Your task to perform on an android device: open a bookmark in the chrome app Image 0: 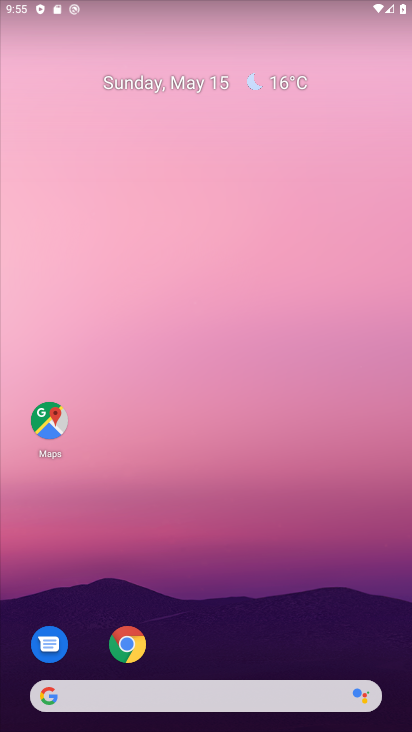
Step 0: click (117, 626)
Your task to perform on an android device: open a bookmark in the chrome app Image 1: 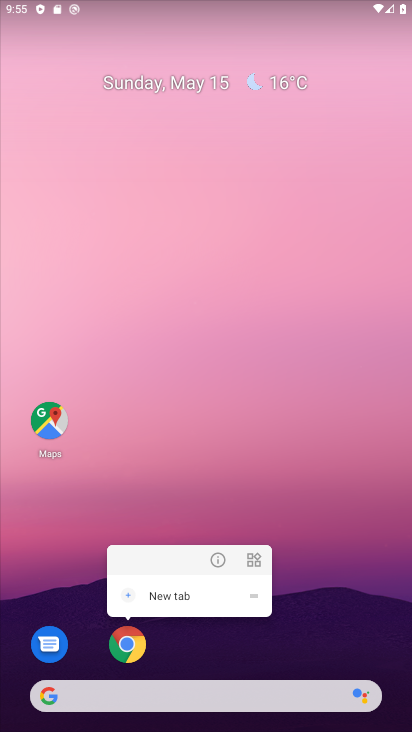
Step 1: click (127, 649)
Your task to perform on an android device: open a bookmark in the chrome app Image 2: 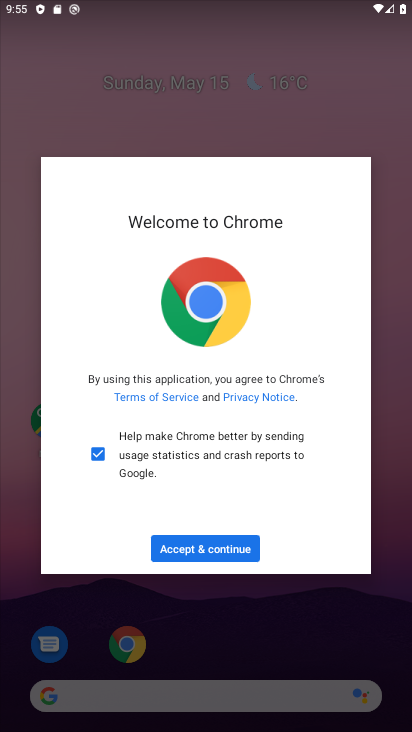
Step 2: click (190, 554)
Your task to perform on an android device: open a bookmark in the chrome app Image 3: 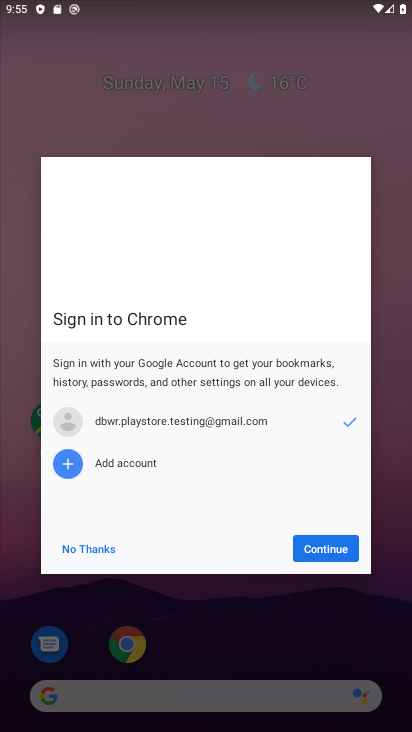
Step 3: click (335, 543)
Your task to perform on an android device: open a bookmark in the chrome app Image 4: 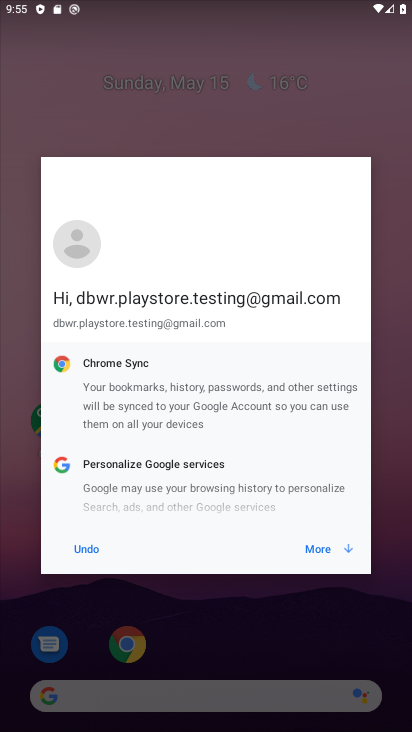
Step 4: click (331, 541)
Your task to perform on an android device: open a bookmark in the chrome app Image 5: 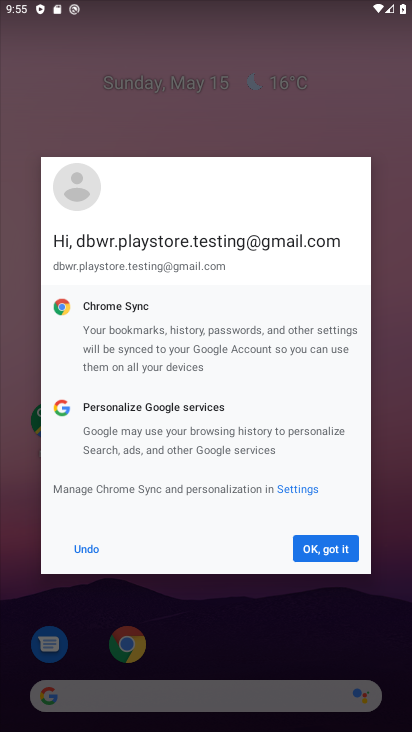
Step 5: click (331, 541)
Your task to perform on an android device: open a bookmark in the chrome app Image 6: 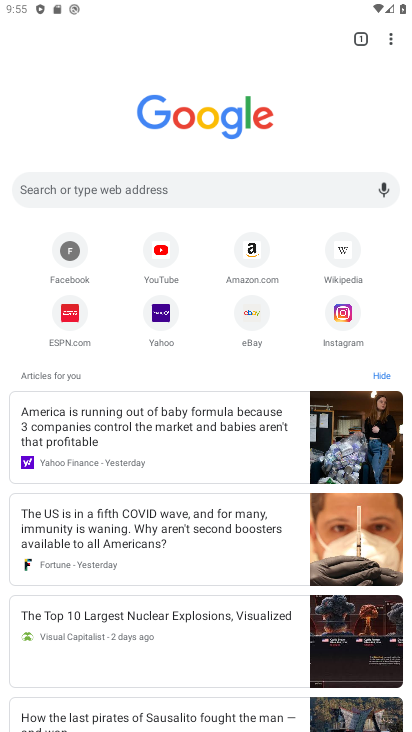
Step 6: click (389, 36)
Your task to perform on an android device: open a bookmark in the chrome app Image 7: 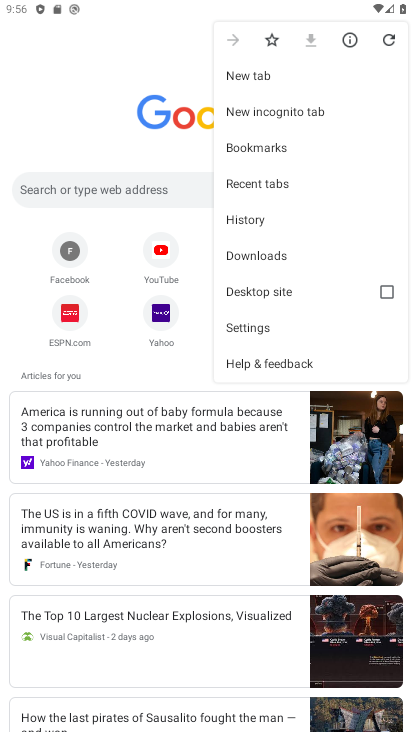
Step 7: click (281, 146)
Your task to perform on an android device: open a bookmark in the chrome app Image 8: 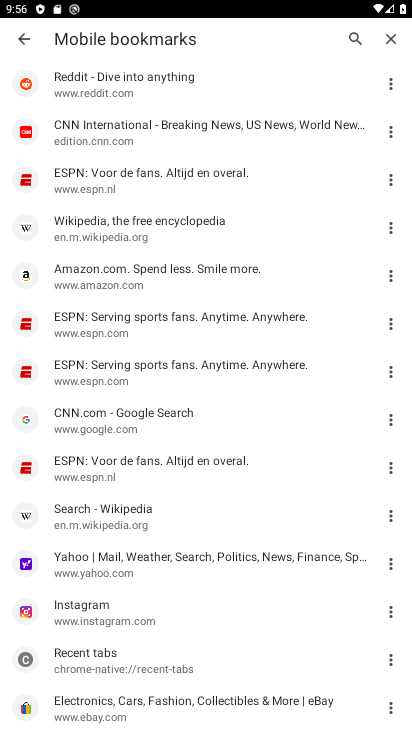
Step 8: task complete